Your task to perform on an android device: What's on my calendar tomorrow? Image 0: 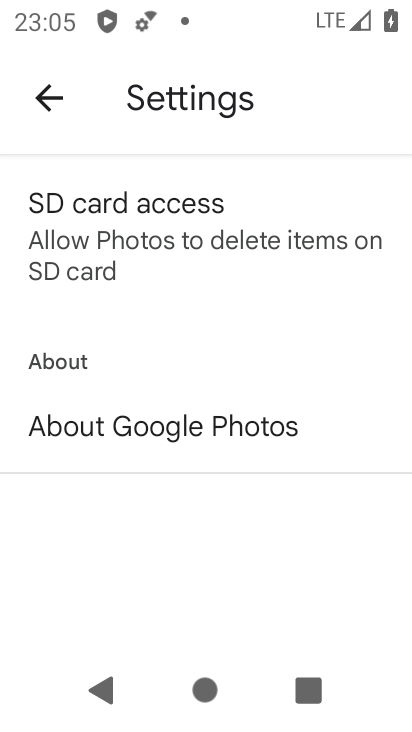
Step 0: press home button
Your task to perform on an android device: What's on my calendar tomorrow? Image 1: 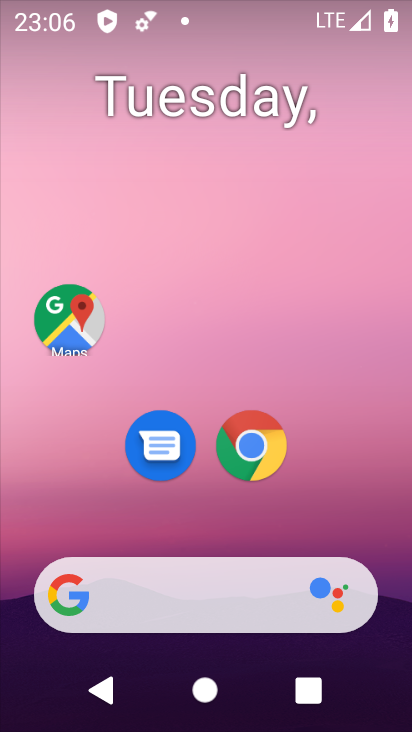
Step 1: drag from (194, 515) to (314, 7)
Your task to perform on an android device: What's on my calendar tomorrow? Image 2: 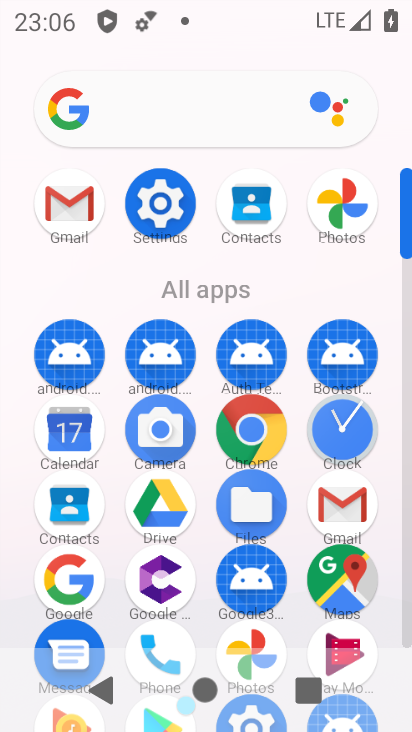
Step 2: click (71, 433)
Your task to perform on an android device: What's on my calendar tomorrow? Image 3: 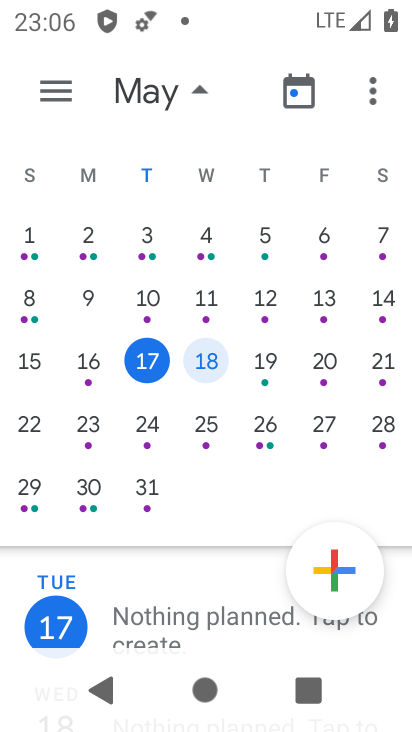
Step 3: click (217, 359)
Your task to perform on an android device: What's on my calendar tomorrow? Image 4: 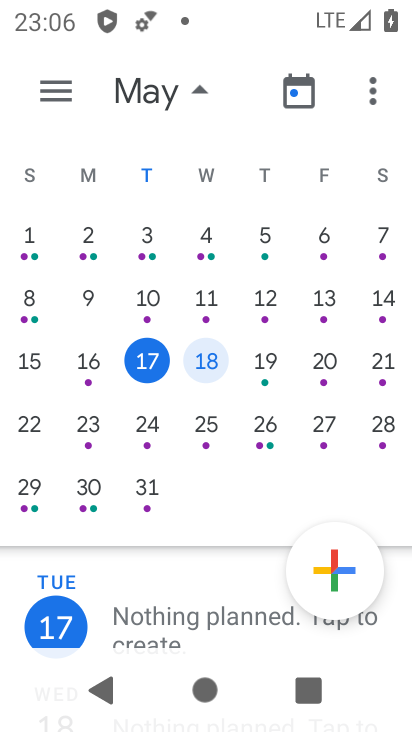
Step 4: click (214, 371)
Your task to perform on an android device: What's on my calendar tomorrow? Image 5: 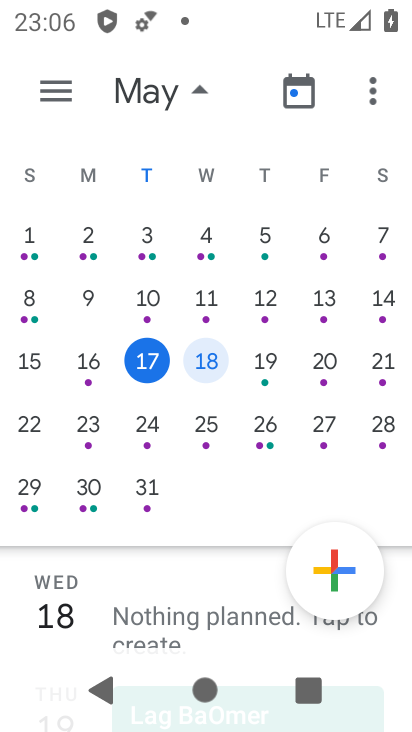
Step 5: click (208, 372)
Your task to perform on an android device: What's on my calendar tomorrow? Image 6: 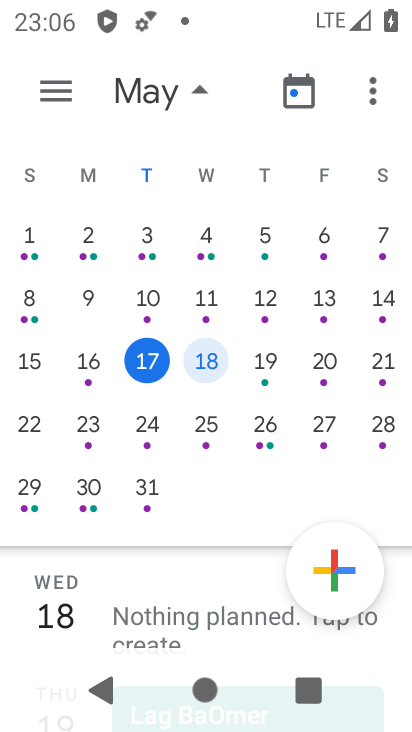
Step 6: task complete